Your task to perform on an android device: manage bookmarks in the chrome app Image 0: 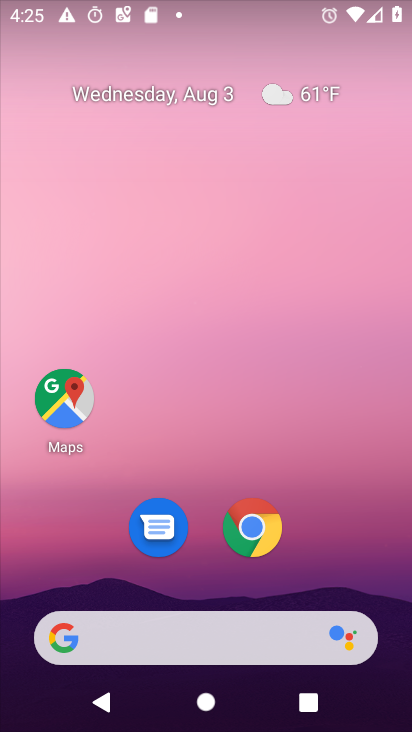
Step 0: drag from (333, 523) to (361, 57)
Your task to perform on an android device: manage bookmarks in the chrome app Image 1: 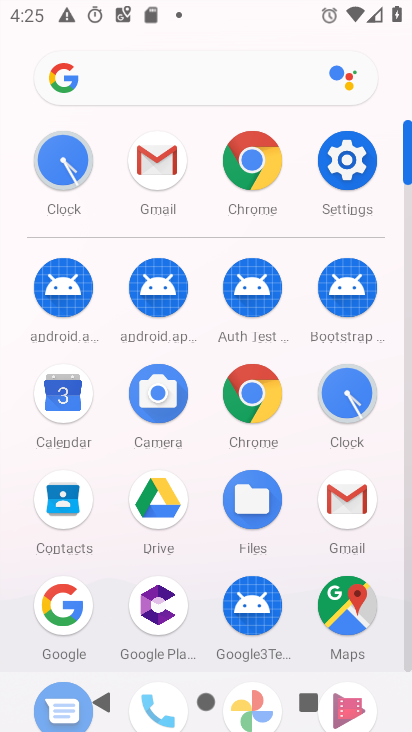
Step 1: click (252, 390)
Your task to perform on an android device: manage bookmarks in the chrome app Image 2: 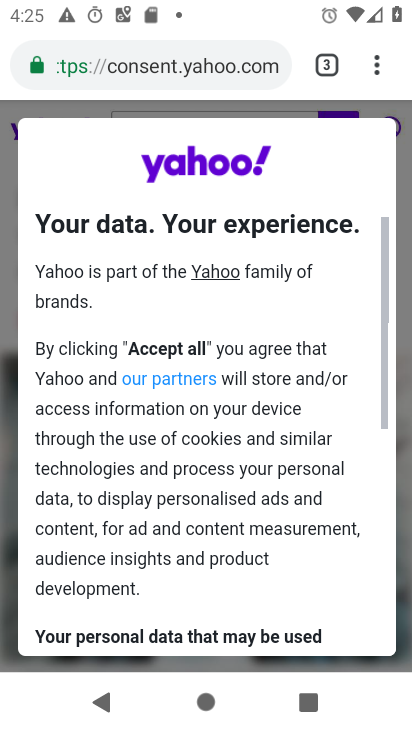
Step 2: drag from (383, 69) to (241, 120)
Your task to perform on an android device: manage bookmarks in the chrome app Image 3: 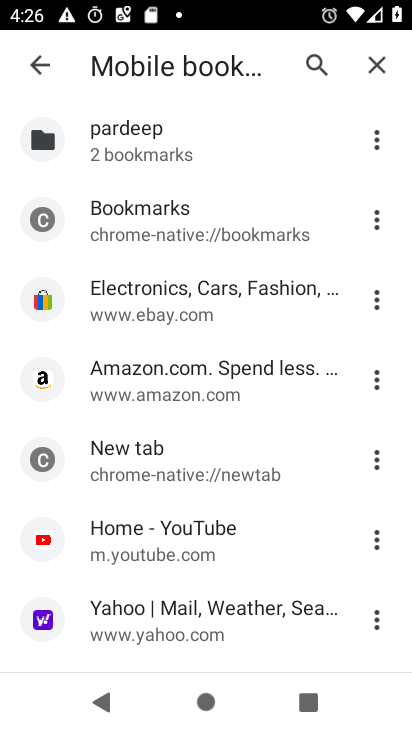
Step 3: click (374, 290)
Your task to perform on an android device: manage bookmarks in the chrome app Image 4: 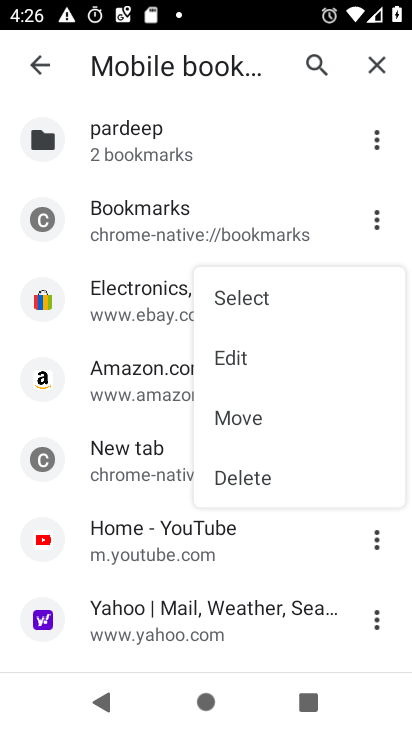
Step 4: click (245, 471)
Your task to perform on an android device: manage bookmarks in the chrome app Image 5: 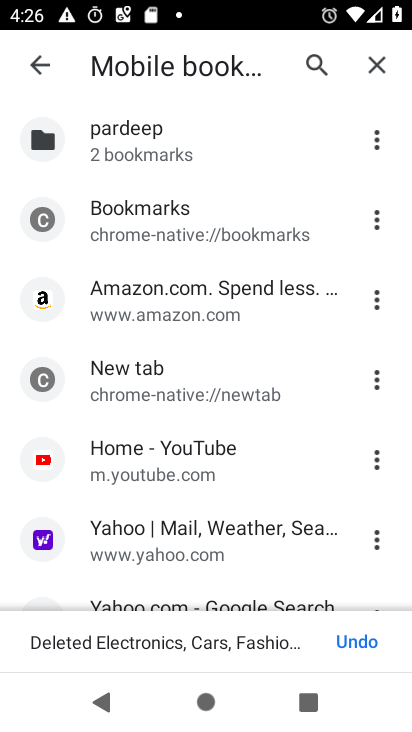
Step 5: task complete